Your task to perform on an android device: Go to CNN.com Image 0: 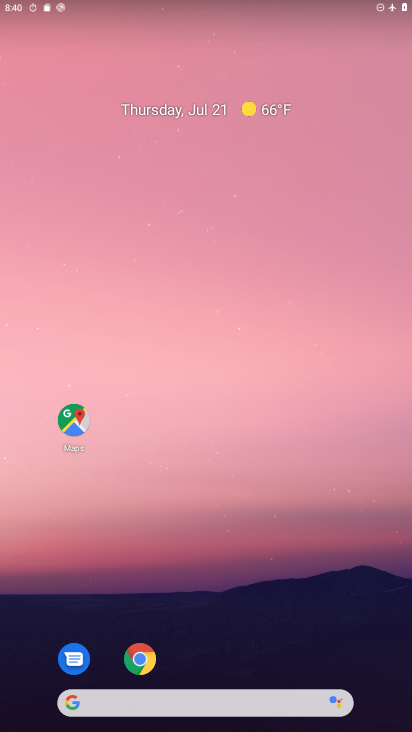
Step 0: drag from (236, 665) to (274, 136)
Your task to perform on an android device: Go to CNN.com Image 1: 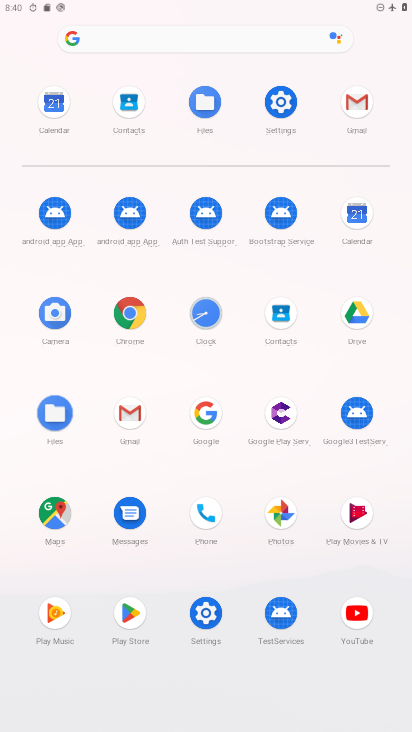
Step 1: click (209, 46)
Your task to perform on an android device: Go to CNN.com Image 2: 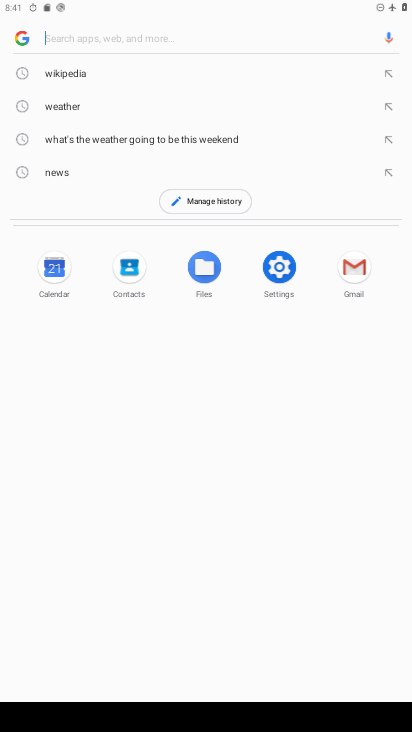
Step 2: type "CNN.com"
Your task to perform on an android device: Go to CNN.com Image 3: 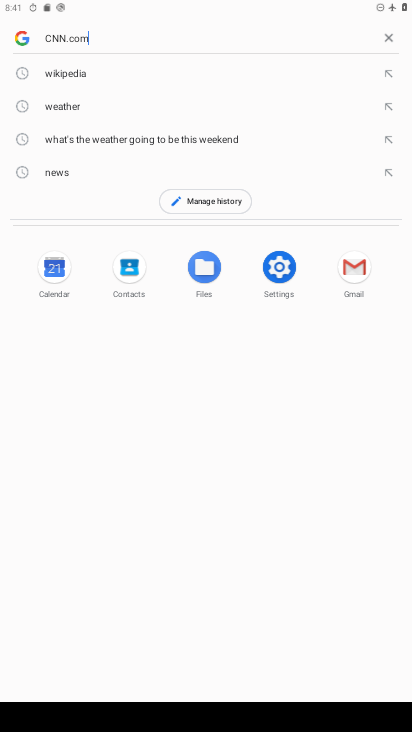
Step 3: type ""
Your task to perform on an android device: Go to CNN.com Image 4: 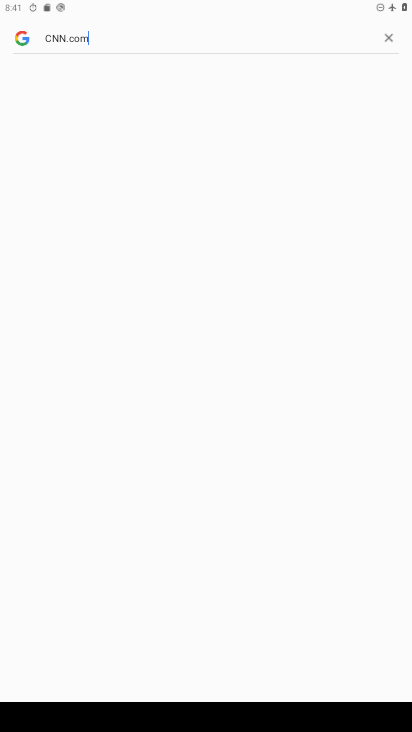
Step 4: drag from (278, 467) to (296, 158)
Your task to perform on an android device: Go to CNN.com Image 5: 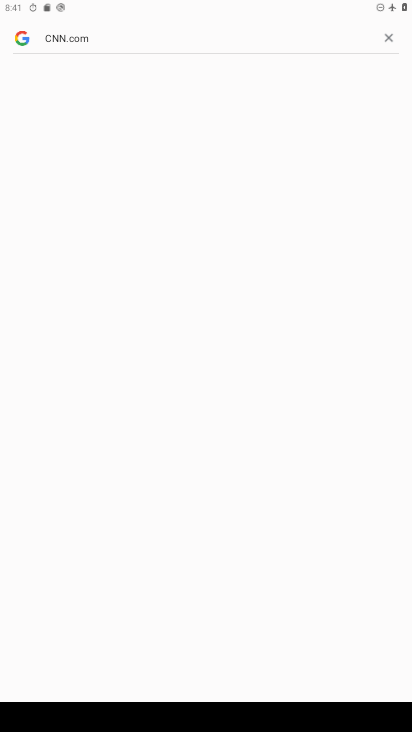
Step 5: drag from (245, 539) to (198, 248)
Your task to perform on an android device: Go to CNN.com Image 6: 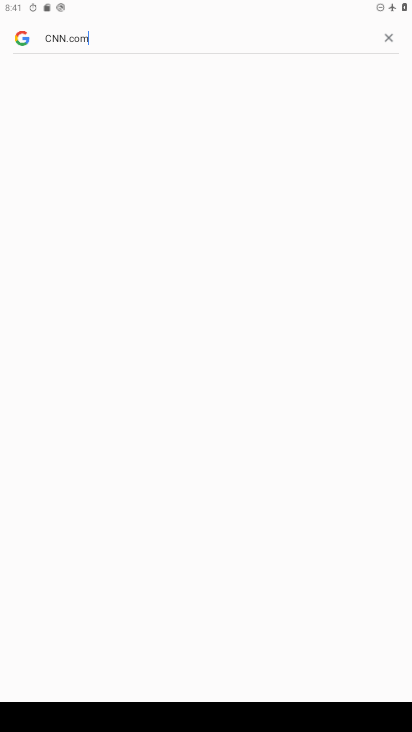
Step 6: click (352, 306)
Your task to perform on an android device: Go to CNN.com Image 7: 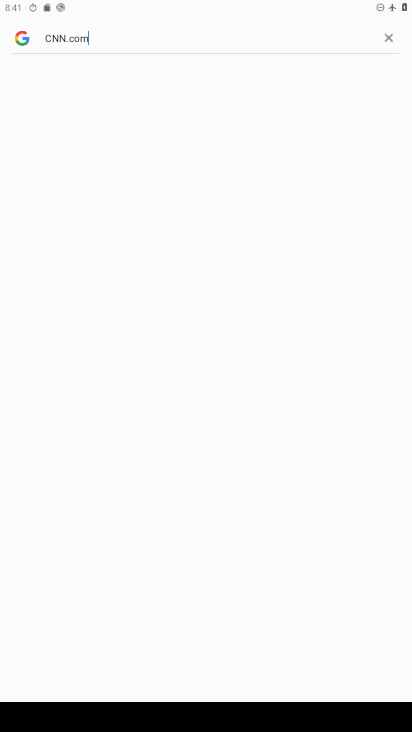
Step 7: task complete